Your task to perform on an android device: open the mobile data screen to see how much data has been used Image 0: 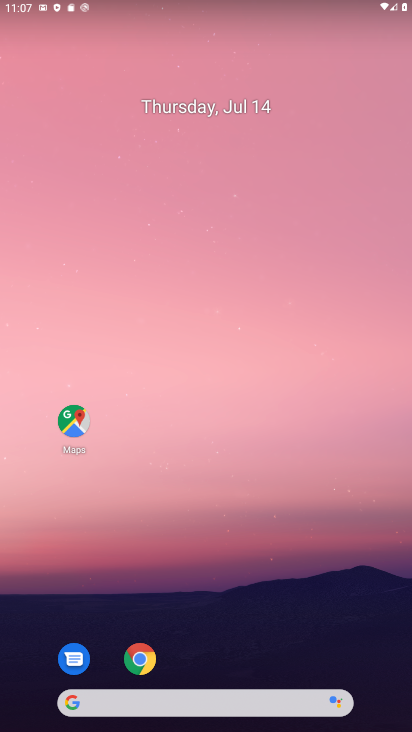
Step 0: drag from (178, 689) to (258, 2)
Your task to perform on an android device: open the mobile data screen to see how much data has been used Image 1: 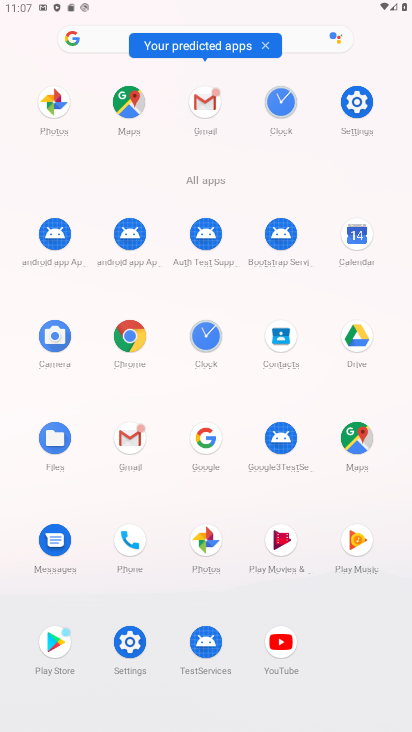
Step 1: click (361, 109)
Your task to perform on an android device: open the mobile data screen to see how much data has been used Image 2: 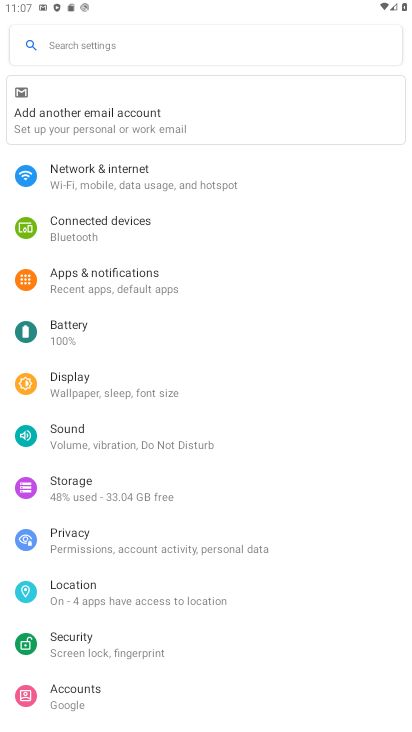
Step 2: click (109, 170)
Your task to perform on an android device: open the mobile data screen to see how much data has been used Image 3: 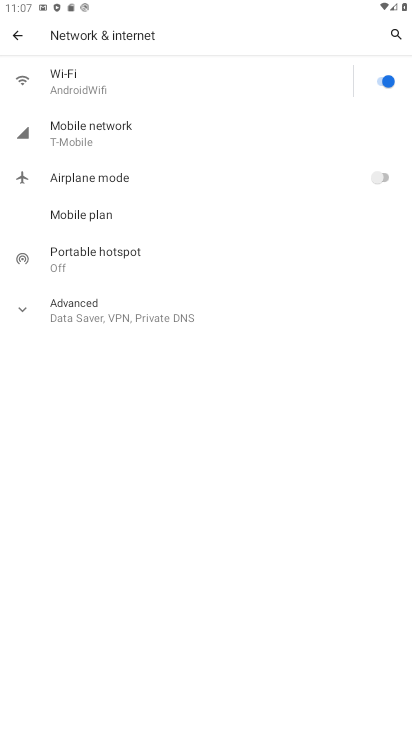
Step 3: click (102, 129)
Your task to perform on an android device: open the mobile data screen to see how much data has been used Image 4: 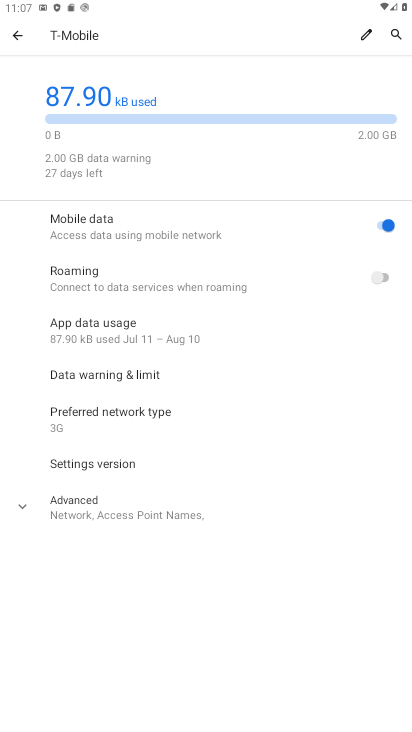
Step 4: task complete